Your task to perform on an android device: check the backup settings in the google photos Image 0: 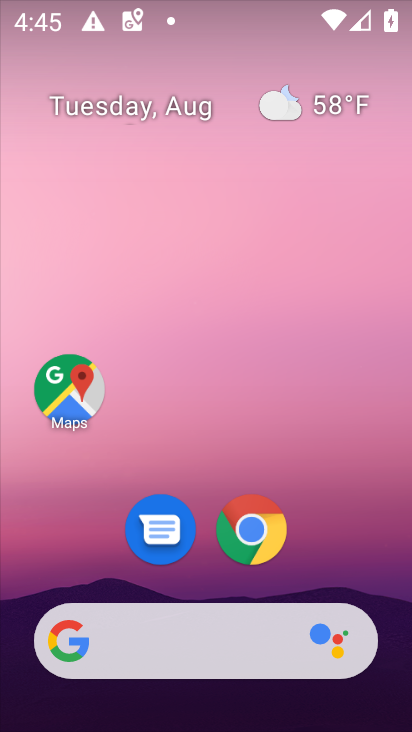
Step 0: drag from (213, 439) to (216, 121)
Your task to perform on an android device: check the backup settings in the google photos Image 1: 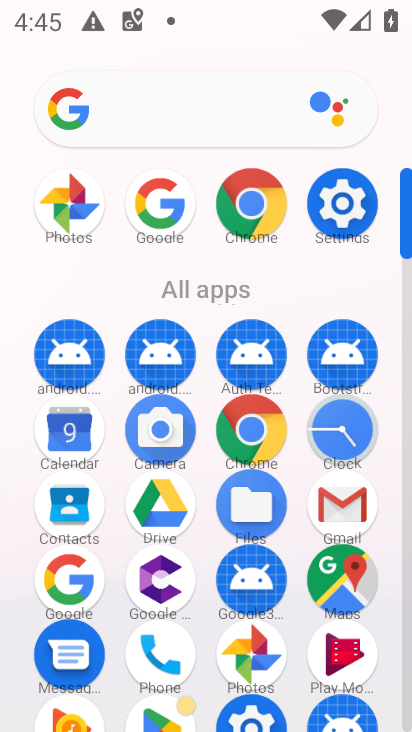
Step 1: click (56, 213)
Your task to perform on an android device: check the backup settings in the google photos Image 2: 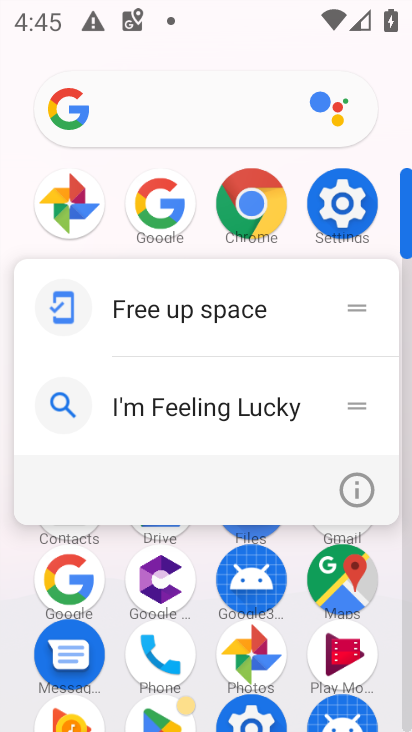
Step 2: click (74, 216)
Your task to perform on an android device: check the backup settings in the google photos Image 3: 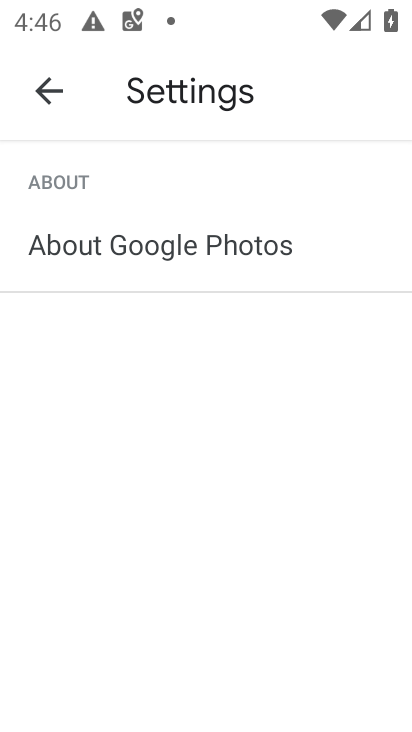
Step 3: click (67, 94)
Your task to perform on an android device: check the backup settings in the google photos Image 4: 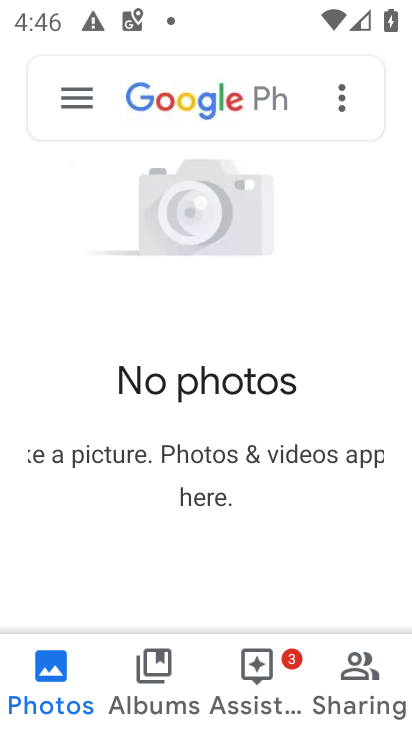
Step 4: click (66, 90)
Your task to perform on an android device: check the backup settings in the google photos Image 5: 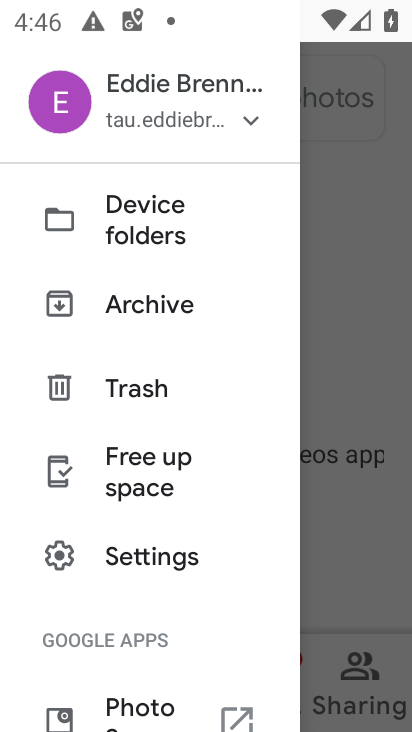
Step 5: click (118, 534)
Your task to perform on an android device: check the backup settings in the google photos Image 6: 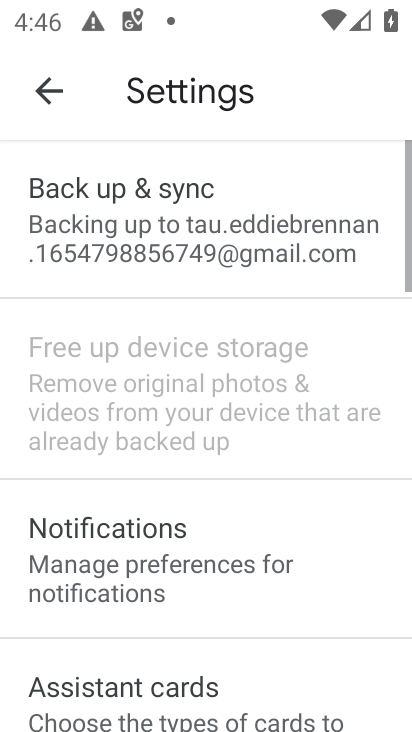
Step 6: click (118, 233)
Your task to perform on an android device: check the backup settings in the google photos Image 7: 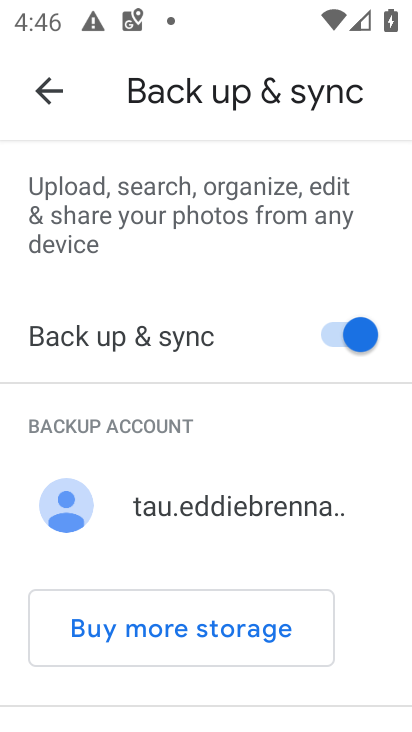
Step 7: task complete